Your task to perform on an android device: View the shopping cart on bestbuy. Add "acer nitro" to the cart on bestbuy, then select checkout. Image 0: 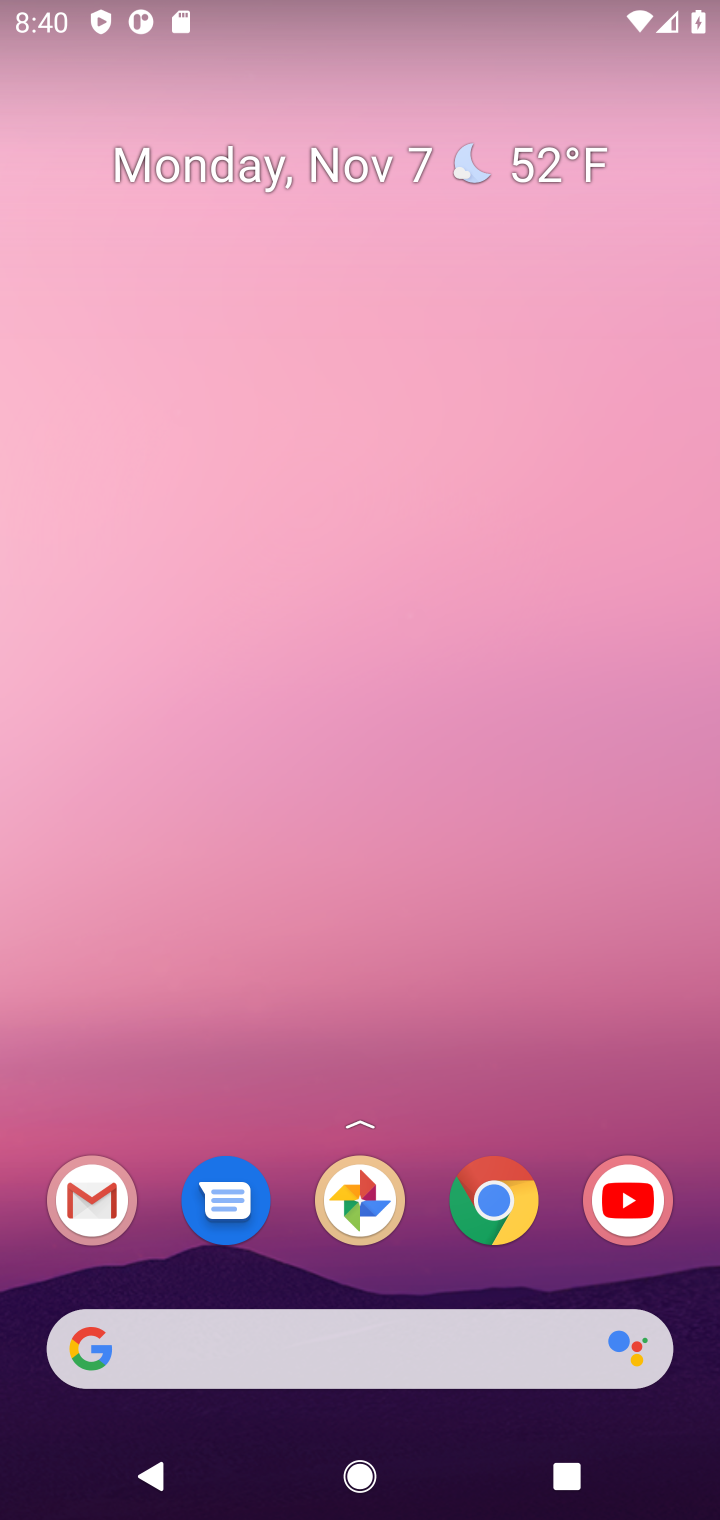
Step 0: click (490, 1208)
Your task to perform on an android device: View the shopping cart on bestbuy. Add "acer nitro" to the cart on bestbuy, then select checkout. Image 1: 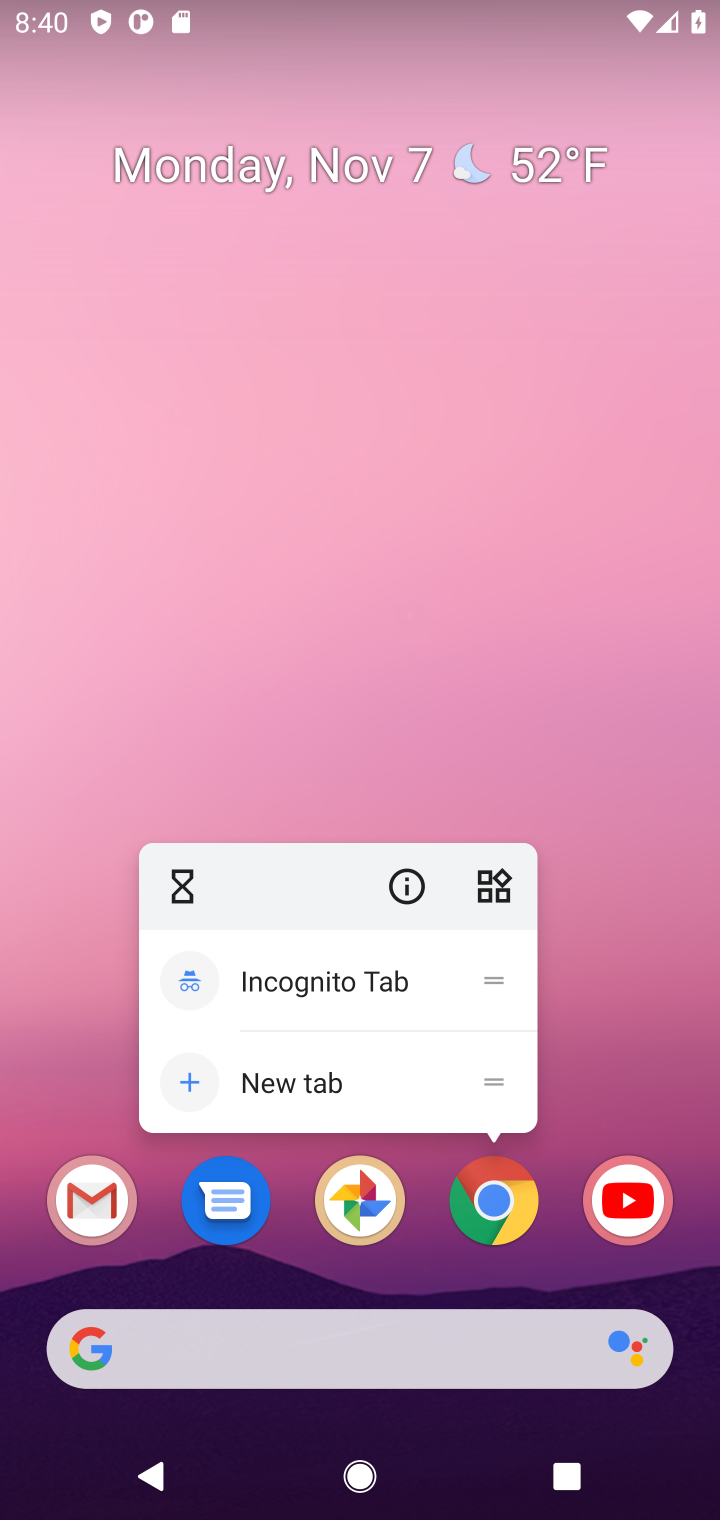
Step 1: click (490, 1208)
Your task to perform on an android device: View the shopping cart on bestbuy. Add "acer nitro" to the cart on bestbuy, then select checkout. Image 2: 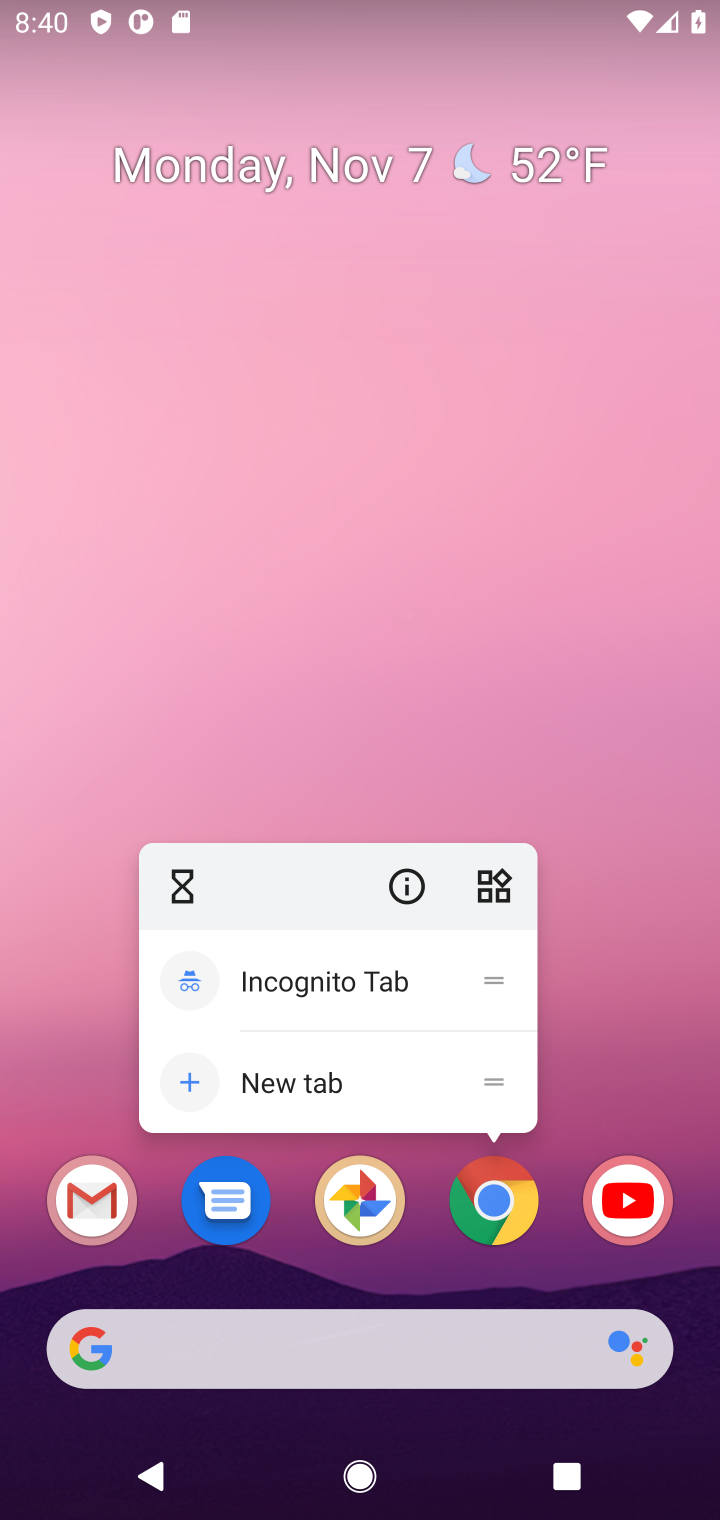
Step 2: click (490, 1208)
Your task to perform on an android device: View the shopping cart on bestbuy. Add "acer nitro" to the cart on bestbuy, then select checkout. Image 3: 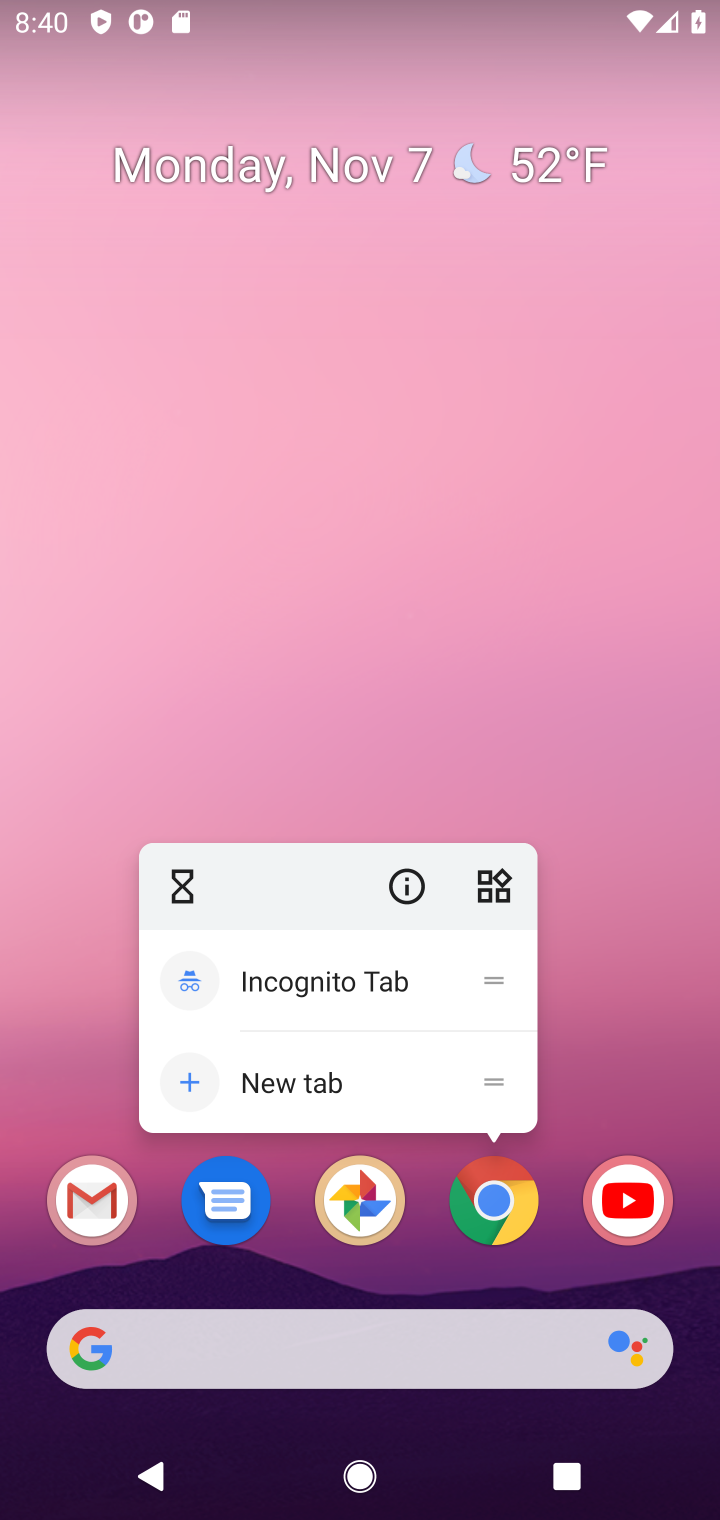
Step 3: click (490, 1208)
Your task to perform on an android device: View the shopping cart on bestbuy. Add "acer nitro" to the cart on bestbuy, then select checkout. Image 4: 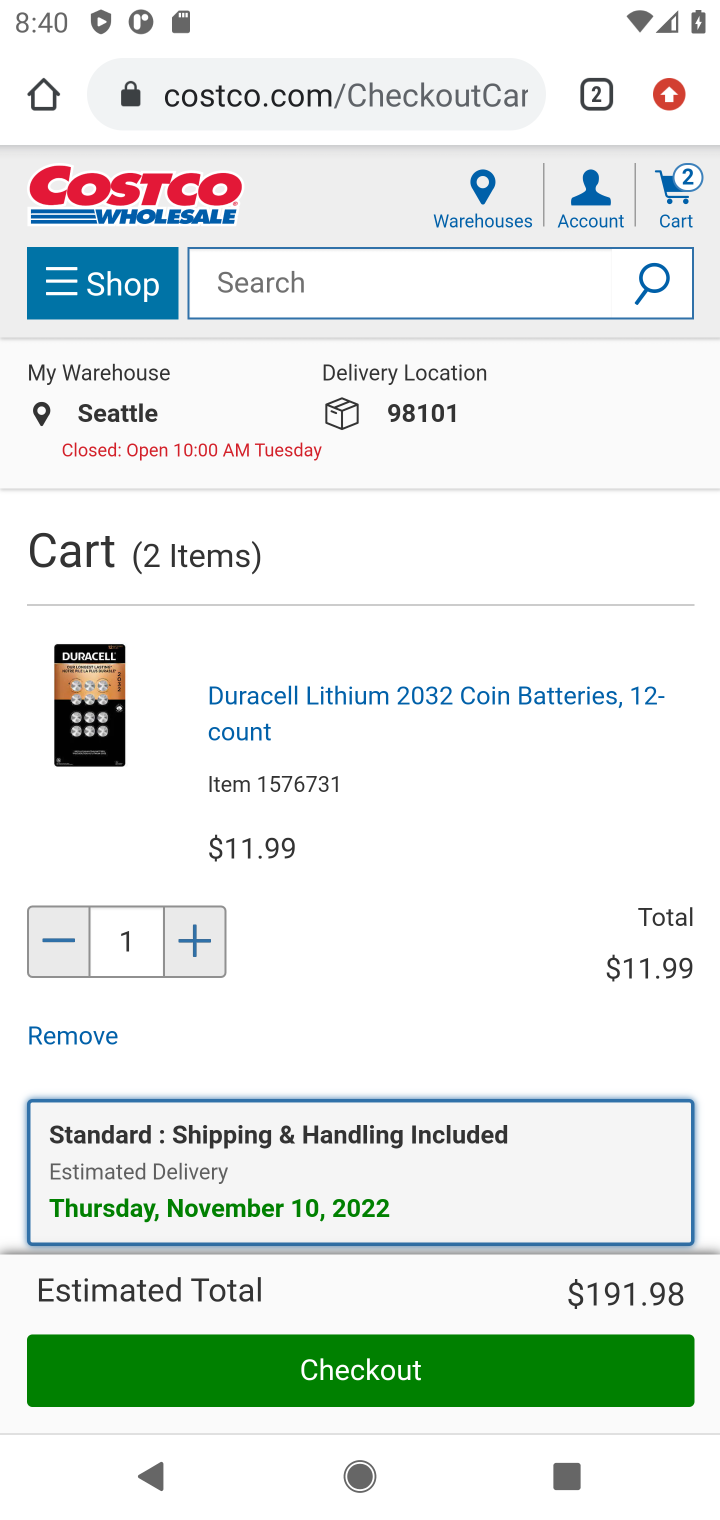
Step 4: click (285, 108)
Your task to perform on an android device: View the shopping cart on bestbuy. Add "acer nitro" to the cart on bestbuy, then select checkout. Image 5: 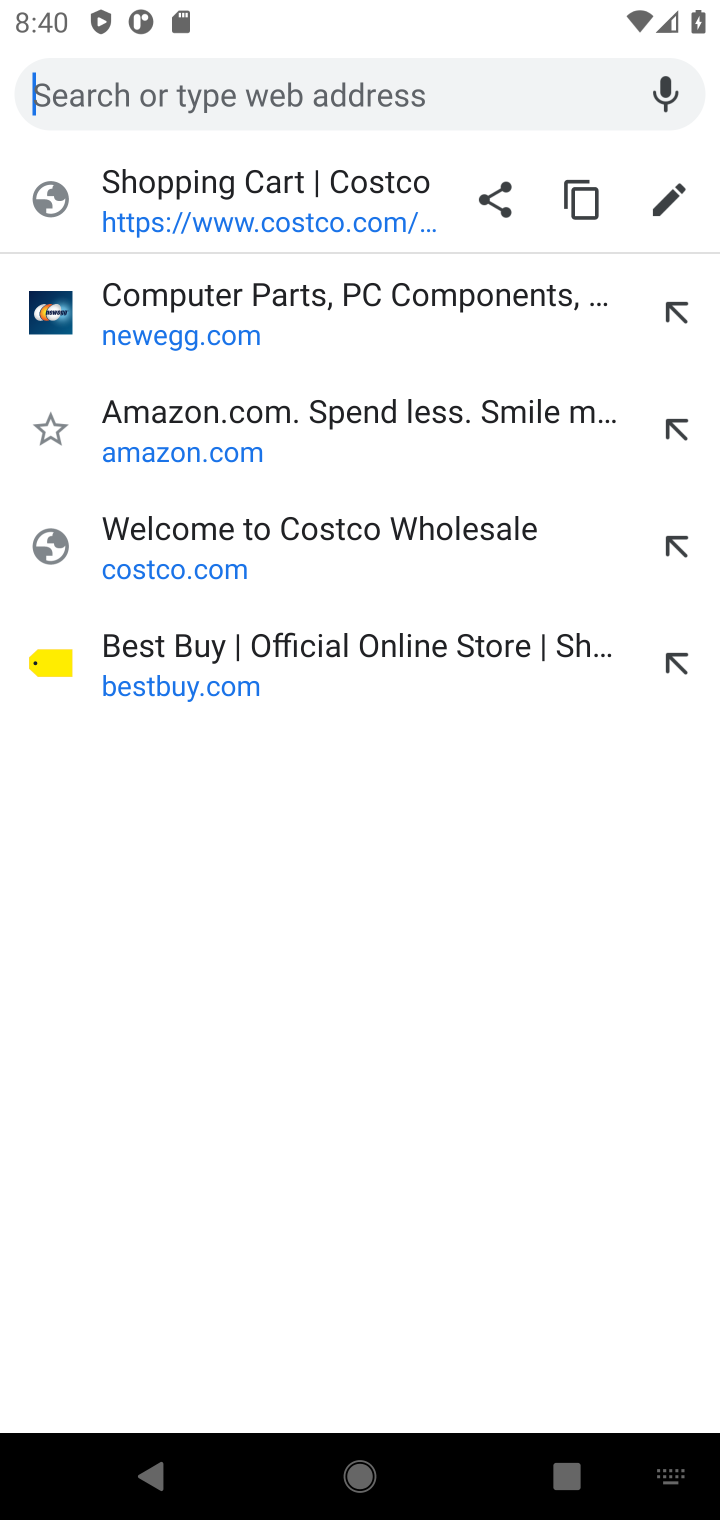
Step 5: type "bestbuy"
Your task to perform on an android device: View the shopping cart on bestbuy. Add "acer nitro" to the cart on bestbuy, then select checkout. Image 6: 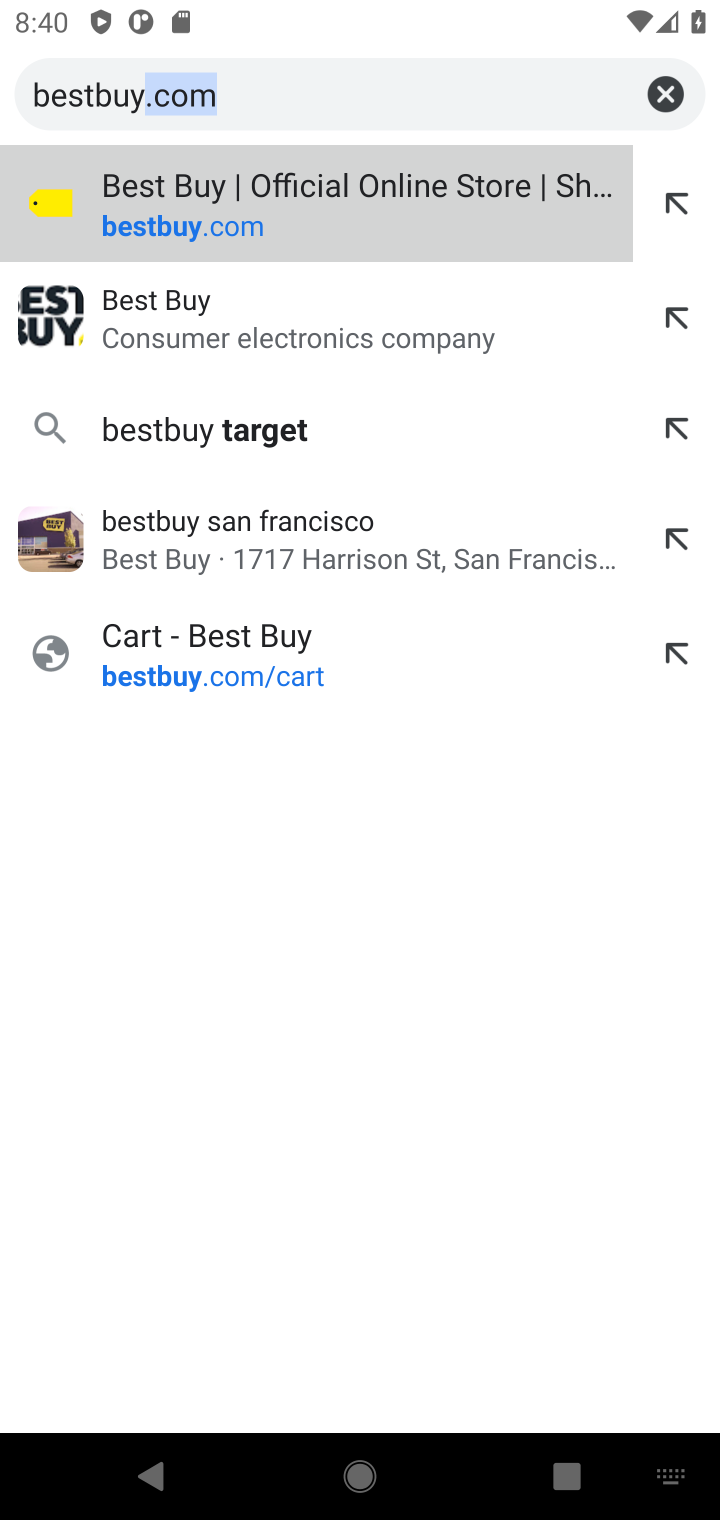
Step 6: press enter
Your task to perform on an android device: View the shopping cart on bestbuy. Add "acer nitro" to the cart on bestbuy, then select checkout. Image 7: 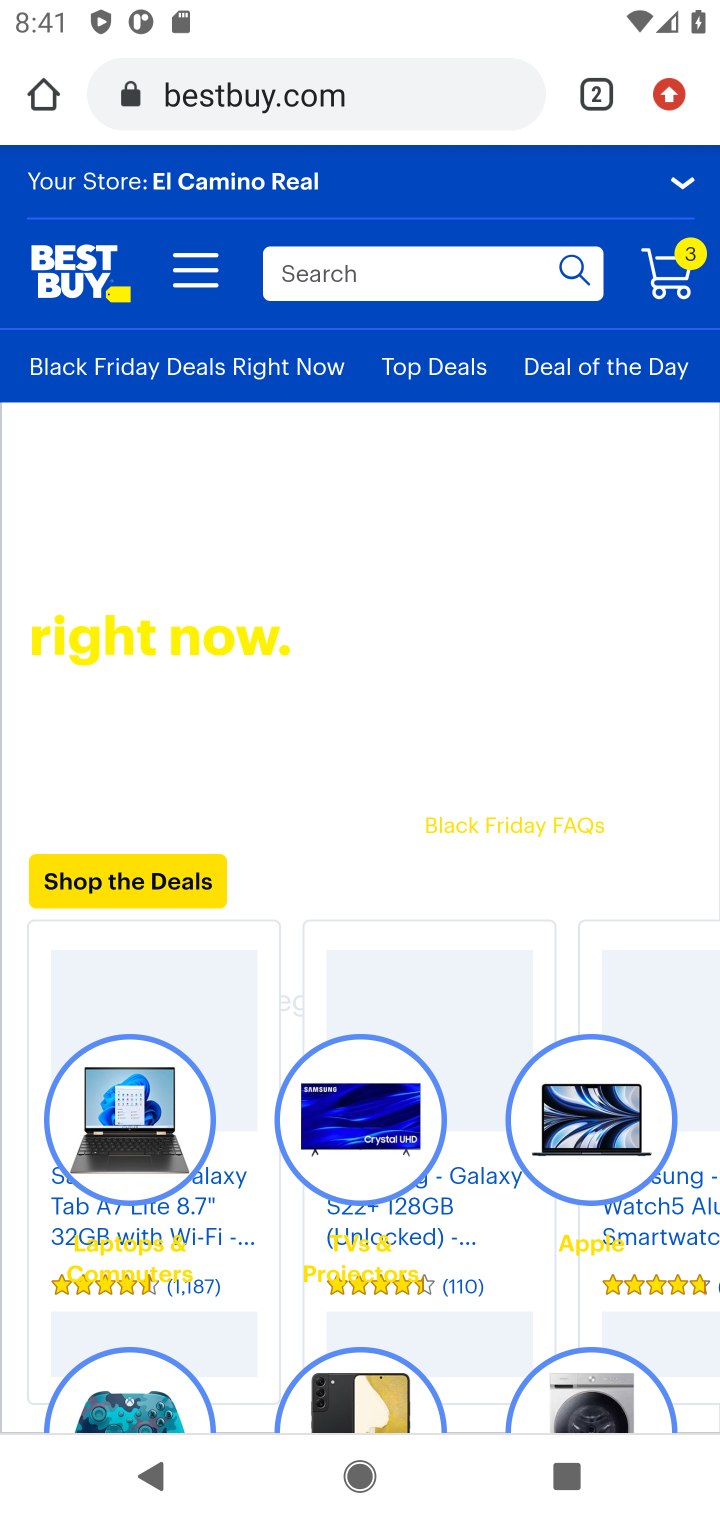
Step 7: click (391, 283)
Your task to perform on an android device: View the shopping cart on bestbuy. Add "acer nitro" to the cart on bestbuy, then select checkout. Image 8: 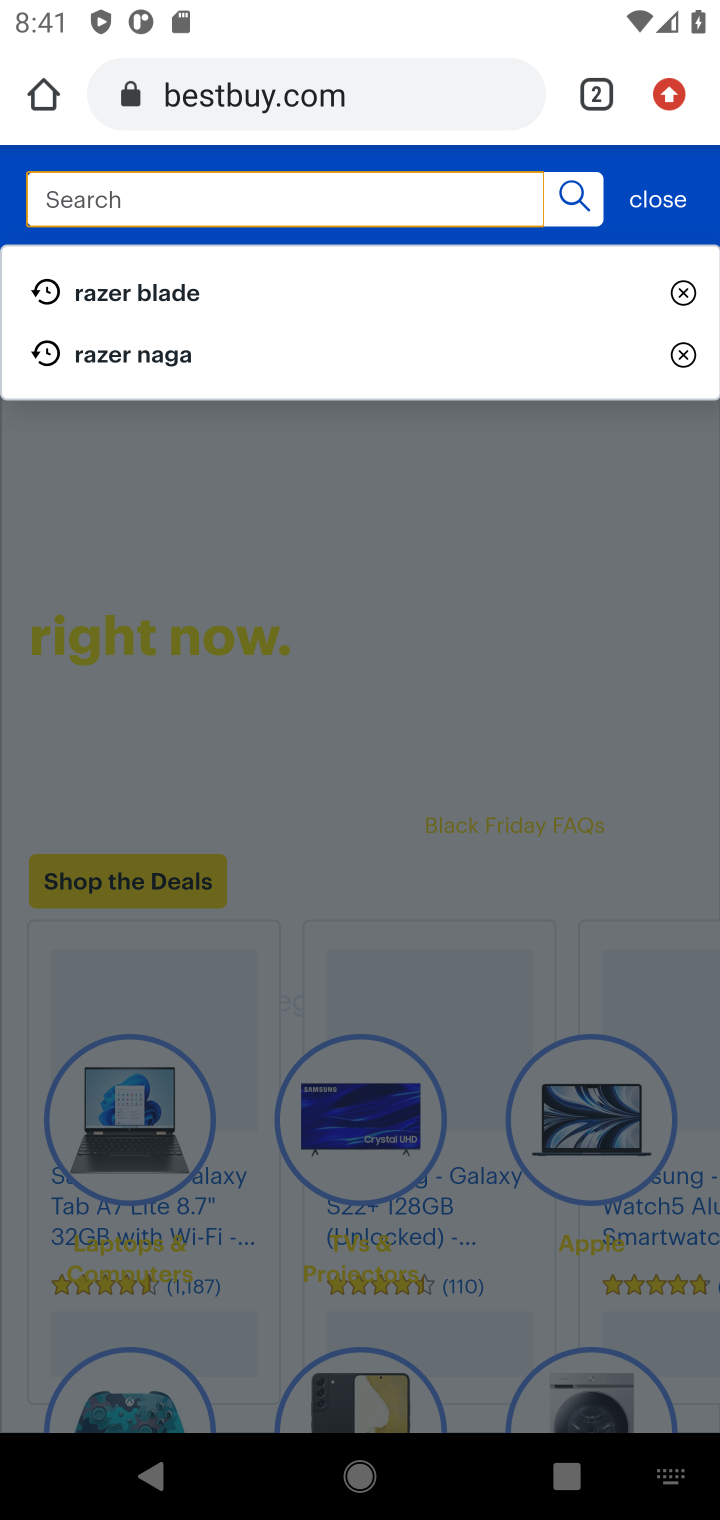
Step 8: click (655, 217)
Your task to perform on an android device: View the shopping cart on bestbuy. Add "acer nitro" to the cart on bestbuy, then select checkout. Image 9: 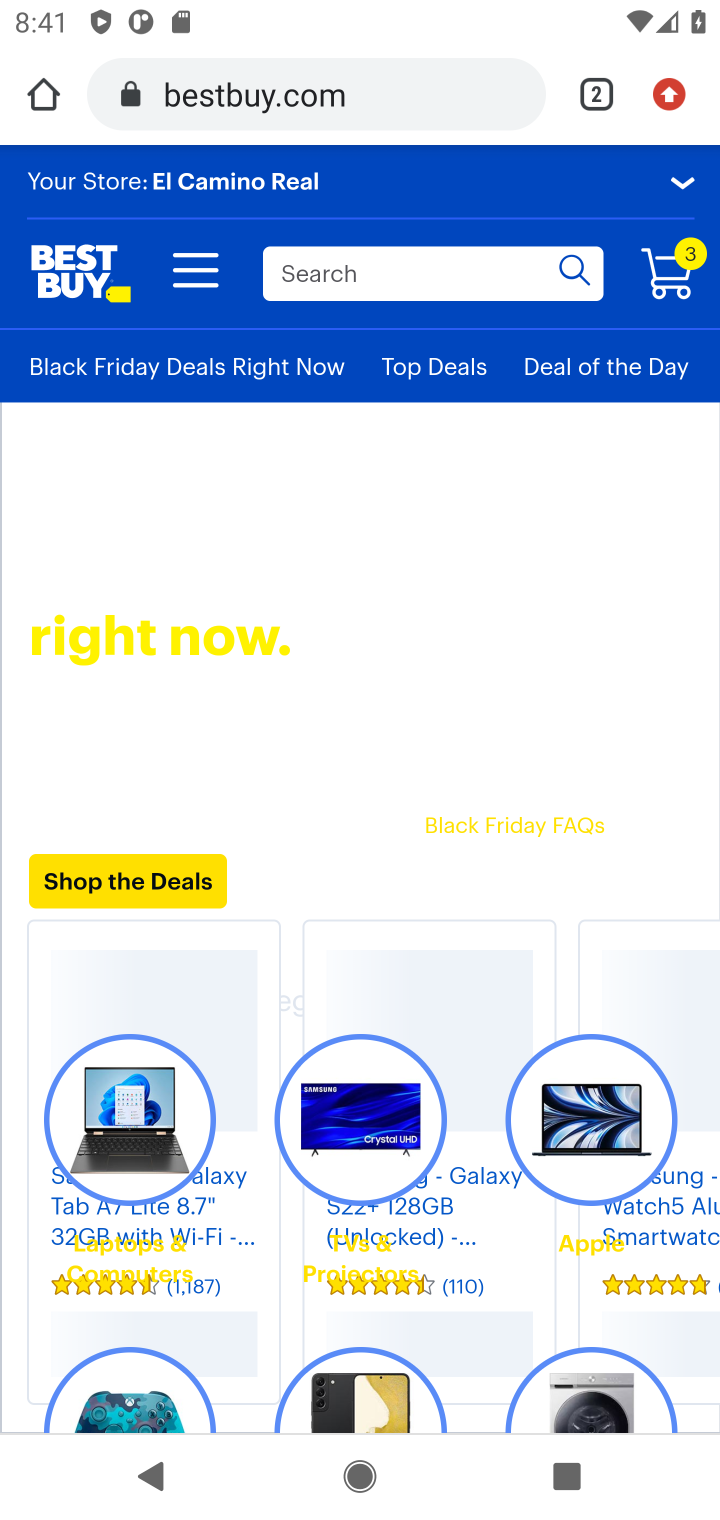
Step 9: click (657, 288)
Your task to perform on an android device: View the shopping cart on bestbuy. Add "acer nitro" to the cart on bestbuy, then select checkout. Image 10: 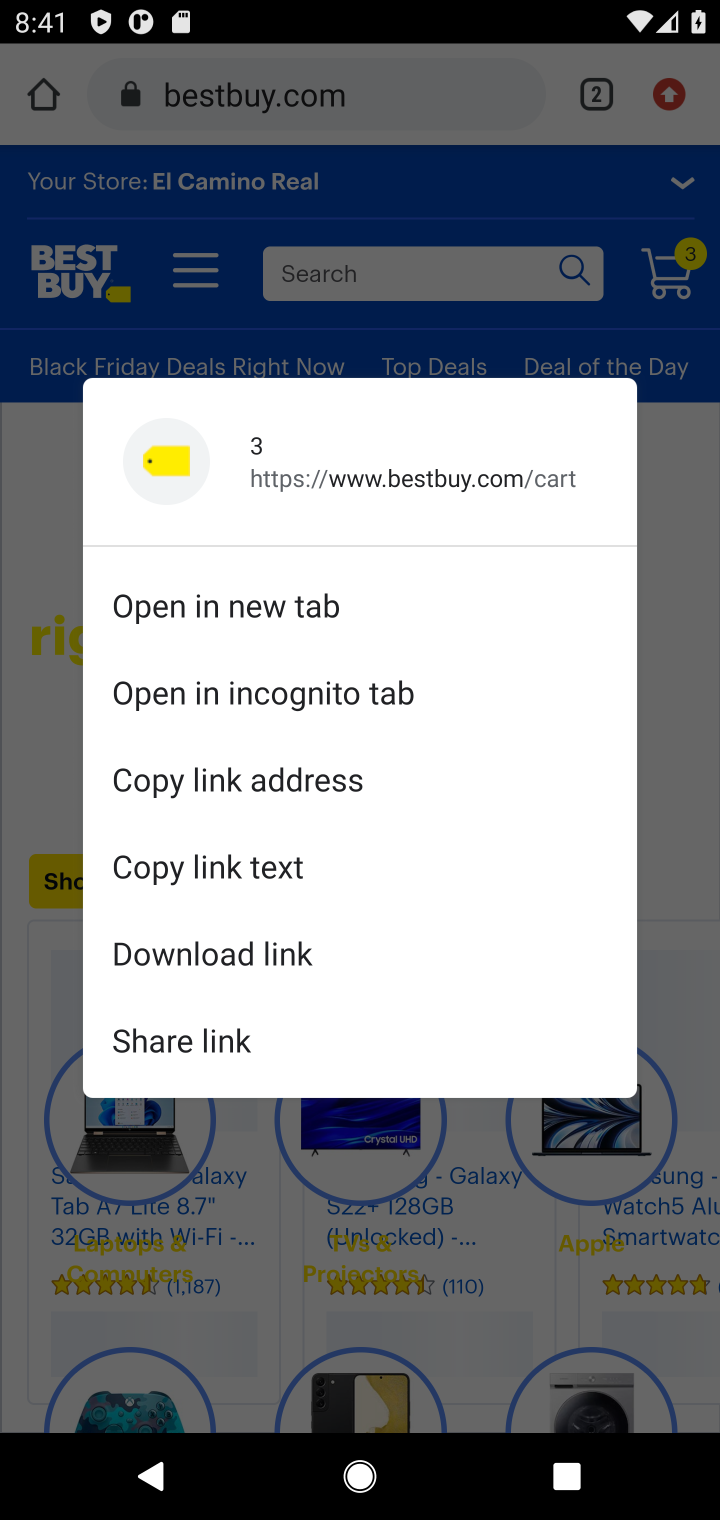
Step 10: click (685, 292)
Your task to perform on an android device: View the shopping cart on bestbuy. Add "acer nitro" to the cart on bestbuy, then select checkout. Image 11: 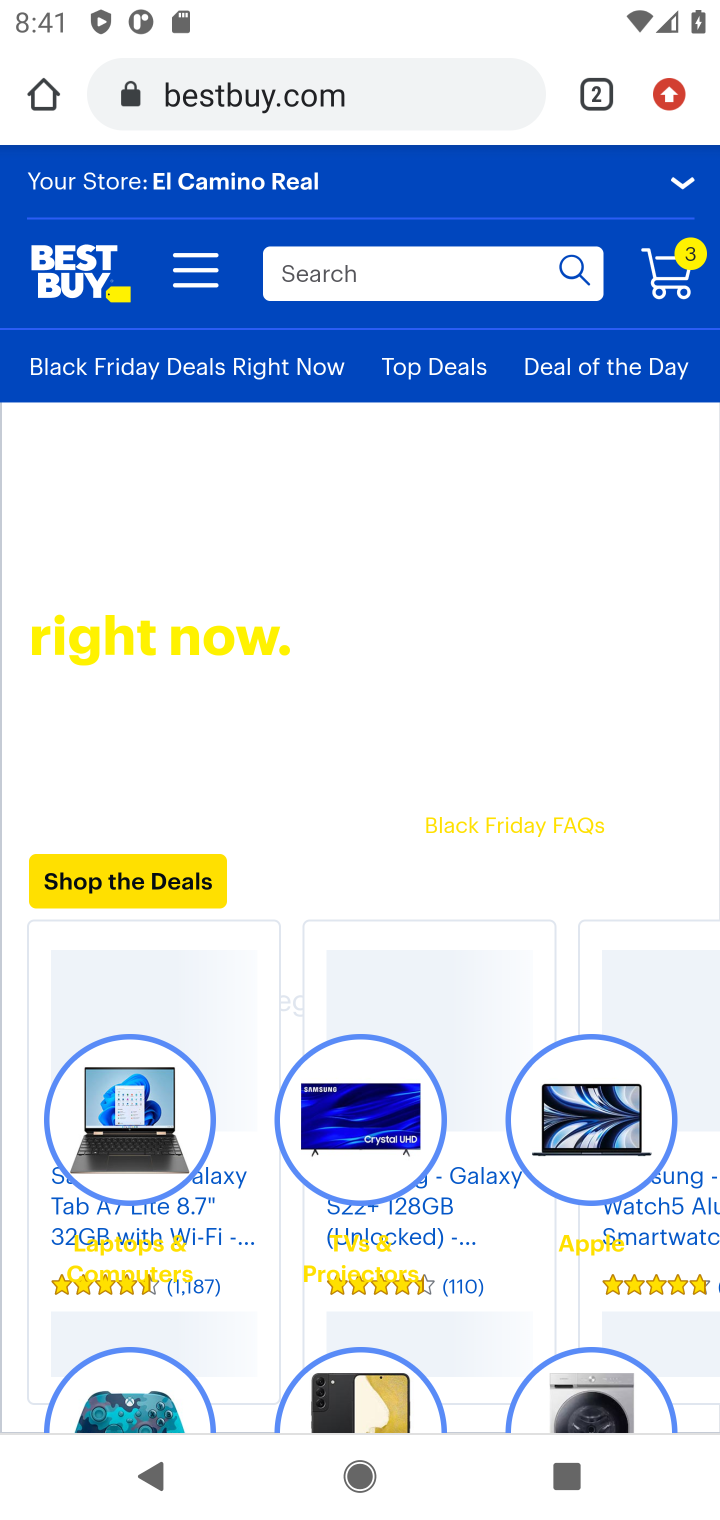
Step 11: click (669, 286)
Your task to perform on an android device: View the shopping cart on bestbuy. Add "acer nitro" to the cart on bestbuy, then select checkout. Image 12: 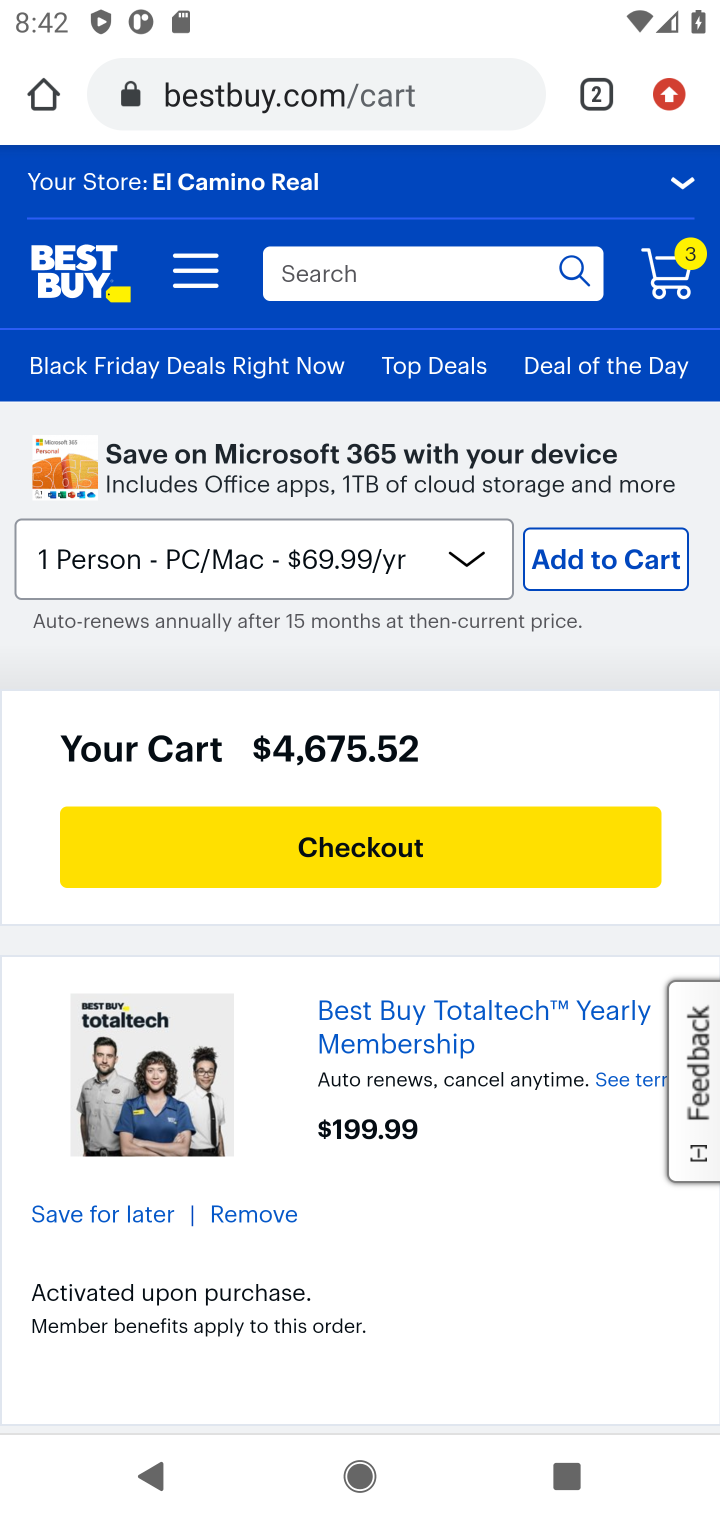
Step 12: click (409, 270)
Your task to perform on an android device: View the shopping cart on bestbuy. Add "acer nitro" to the cart on bestbuy, then select checkout. Image 13: 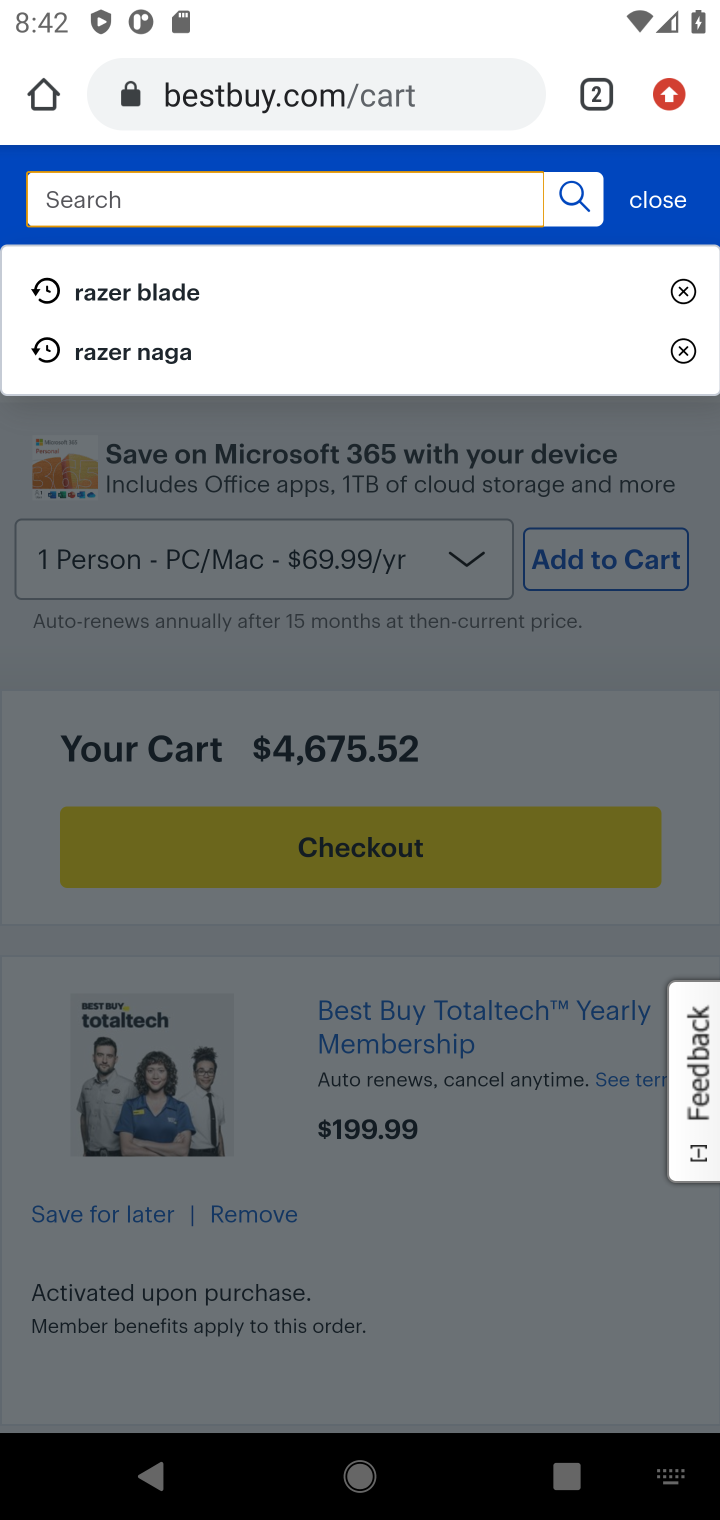
Step 13: type "acer nitro"
Your task to perform on an android device: View the shopping cart on bestbuy. Add "acer nitro" to the cart on bestbuy, then select checkout. Image 14: 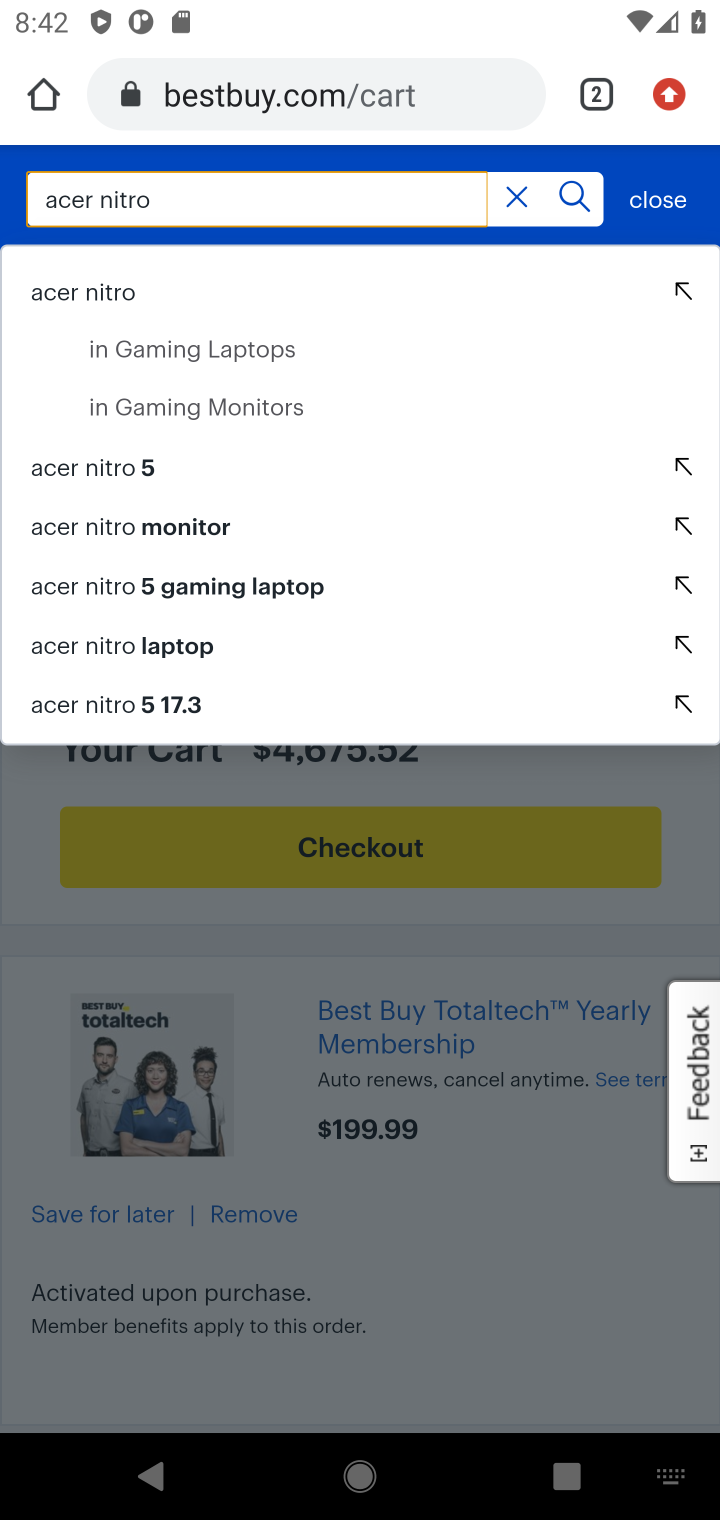
Step 14: press enter
Your task to perform on an android device: View the shopping cart on bestbuy. Add "acer nitro" to the cart on bestbuy, then select checkout. Image 15: 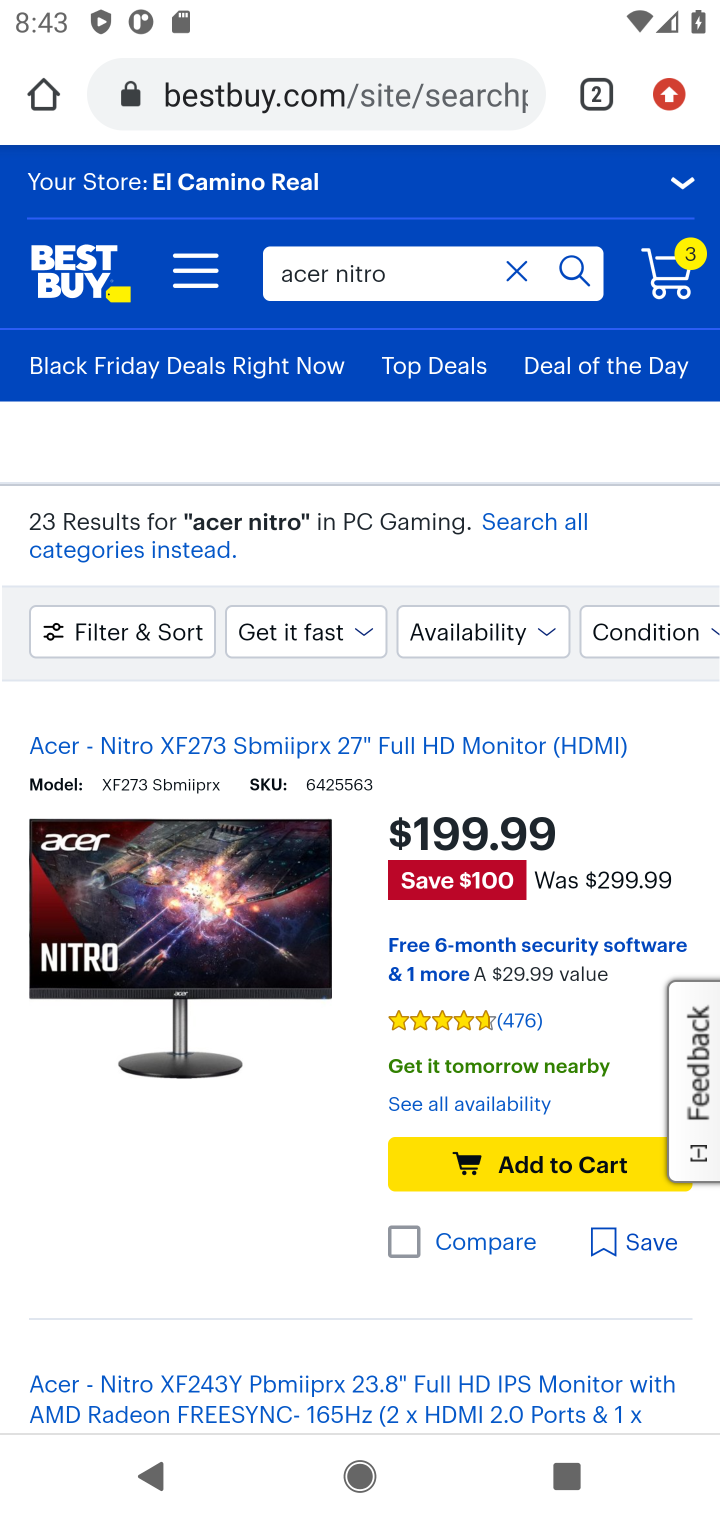
Step 15: click (488, 1157)
Your task to perform on an android device: View the shopping cart on bestbuy. Add "acer nitro" to the cart on bestbuy, then select checkout. Image 16: 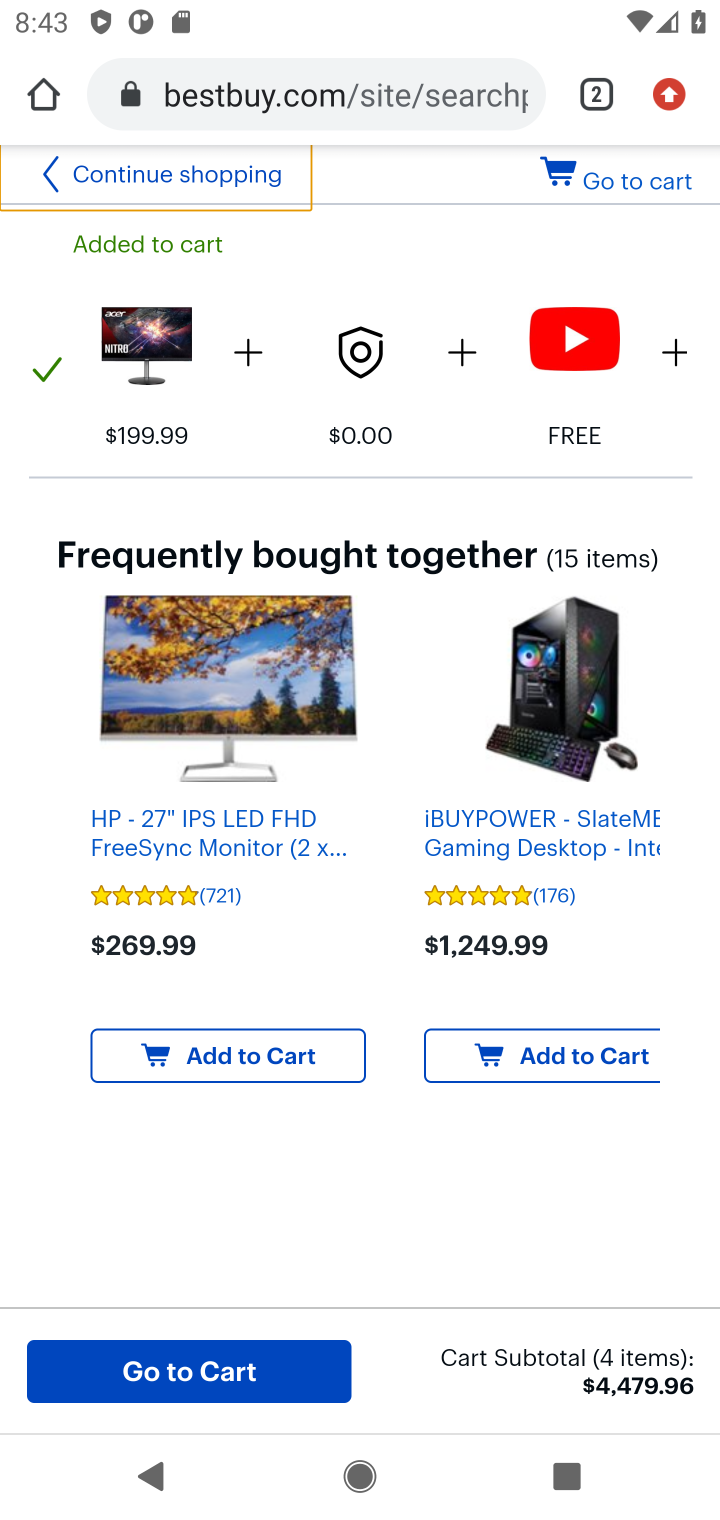
Step 16: click (226, 1371)
Your task to perform on an android device: View the shopping cart on bestbuy. Add "acer nitro" to the cart on bestbuy, then select checkout. Image 17: 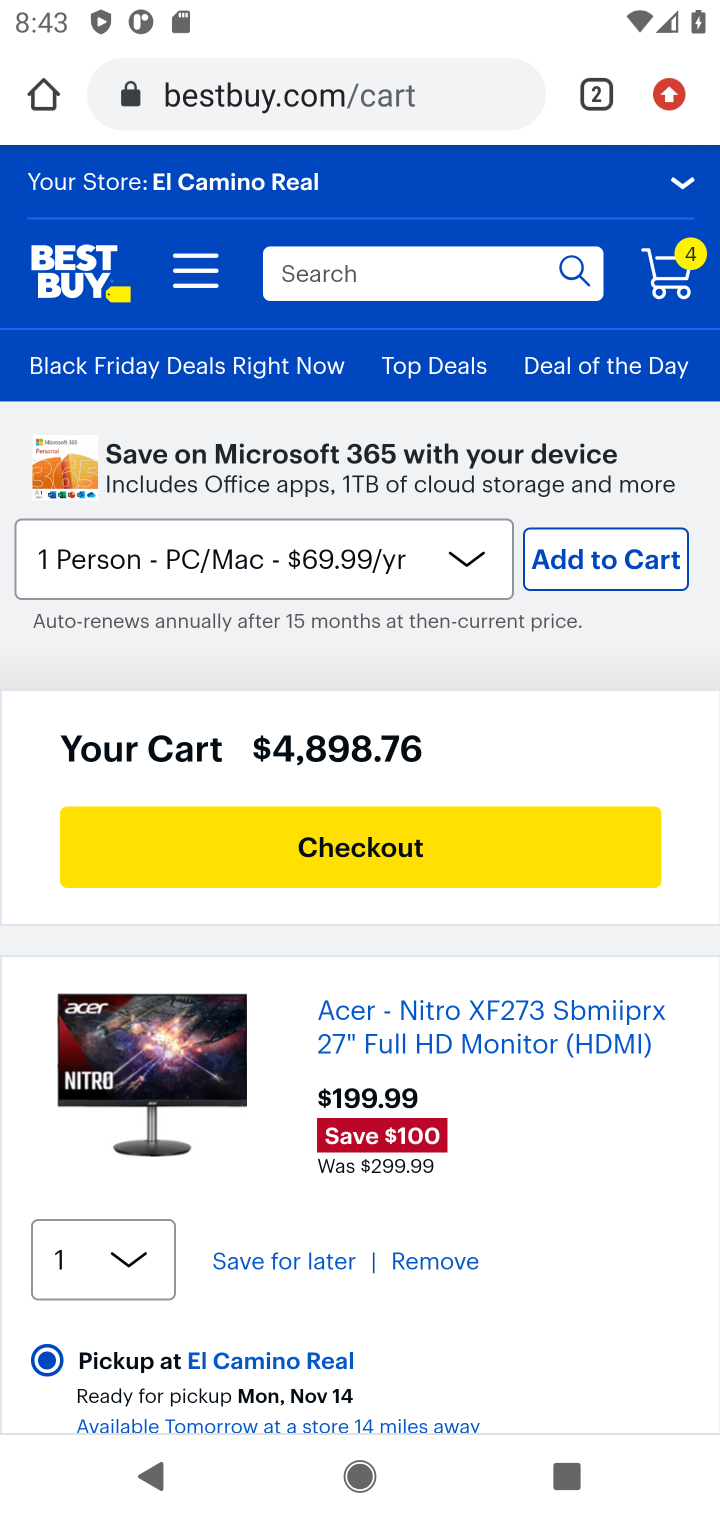
Step 17: click (469, 881)
Your task to perform on an android device: View the shopping cart on bestbuy. Add "acer nitro" to the cart on bestbuy, then select checkout. Image 18: 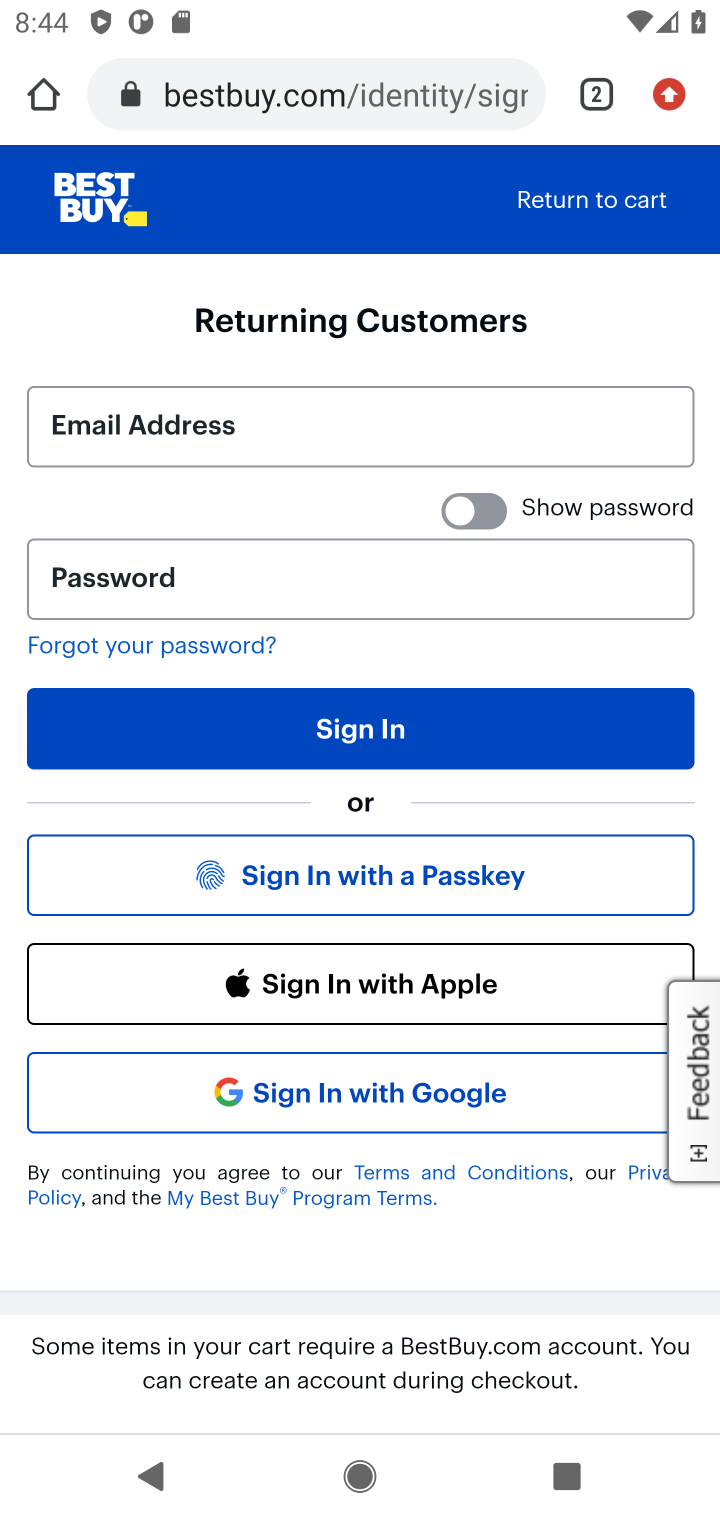
Step 18: task complete